Your task to perform on an android device: Open Google Maps and go to "Timeline" Image 0: 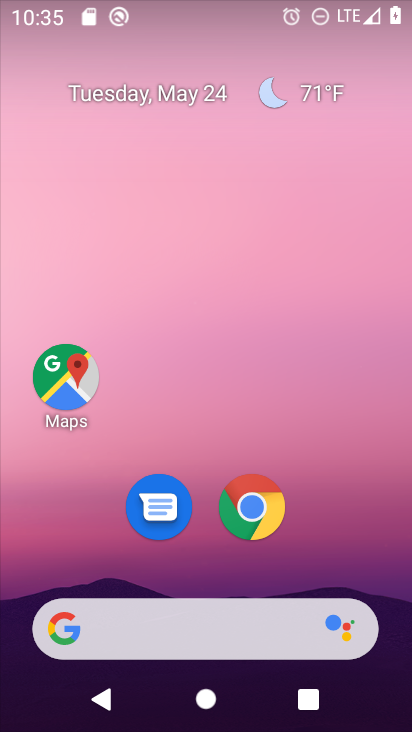
Step 0: drag from (224, 714) to (224, 177)
Your task to perform on an android device: Open Google Maps and go to "Timeline" Image 1: 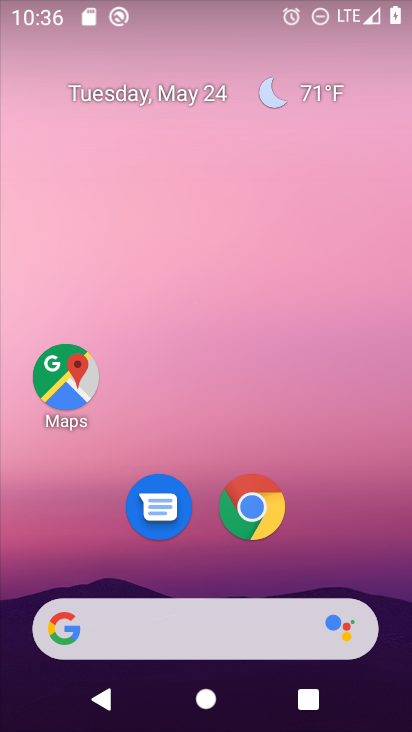
Step 1: drag from (214, 726) to (217, 210)
Your task to perform on an android device: Open Google Maps and go to "Timeline" Image 2: 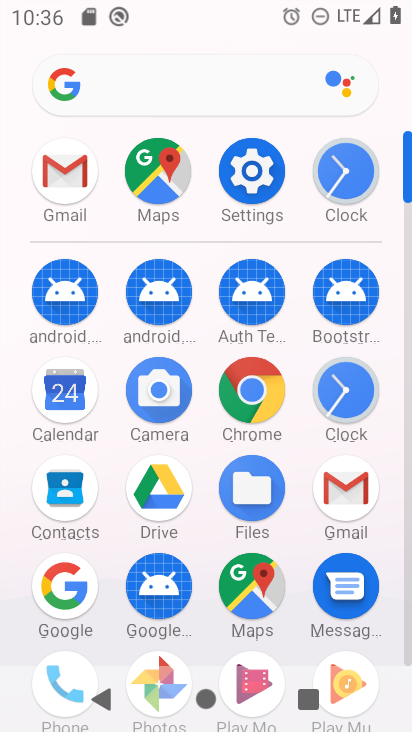
Step 2: click (239, 584)
Your task to perform on an android device: Open Google Maps and go to "Timeline" Image 3: 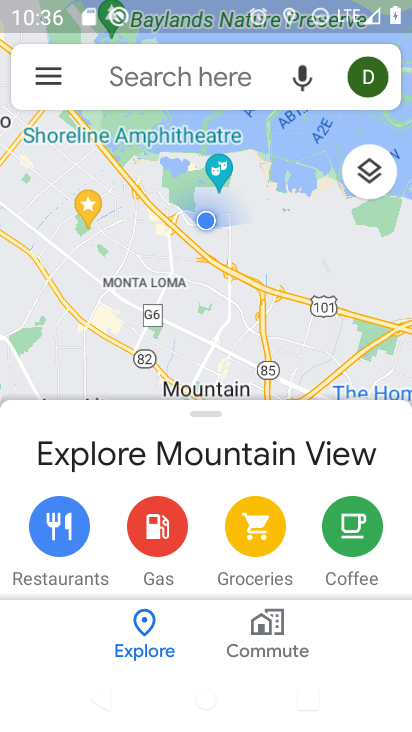
Step 3: click (49, 77)
Your task to perform on an android device: Open Google Maps and go to "Timeline" Image 4: 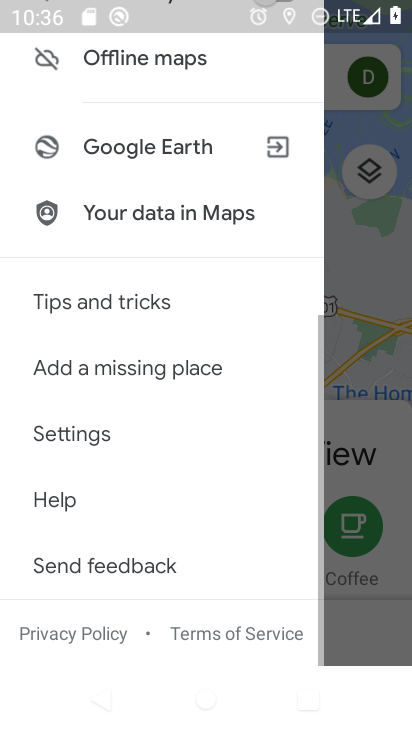
Step 4: drag from (168, 161) to (191, 548)
Your task to perform on an android device: Open Google Maps and go to "Timeline" Image 5: 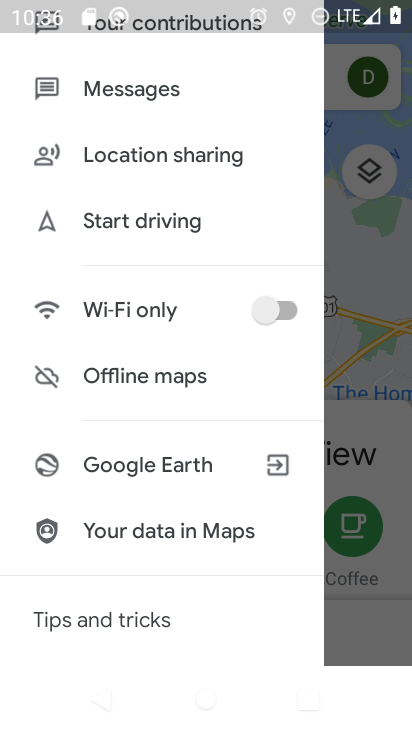
Step 5: drag from (148, 96) to (174, 536)
Your task to perform on an android device: Open Google Maps and go to "Timeline" Image 6: 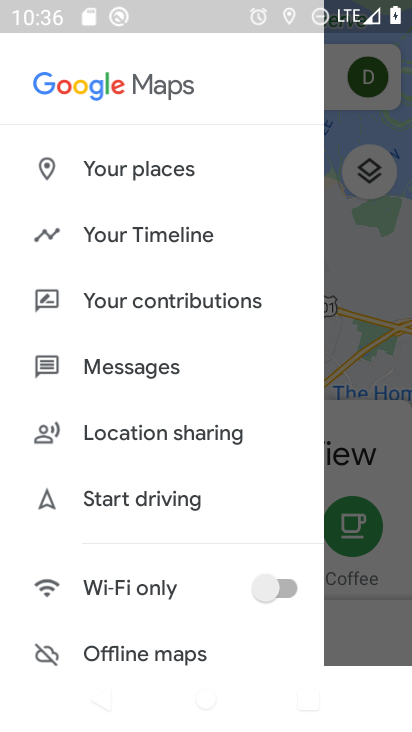
Step 6: click (136, 233)
Your task to perform on an android device: Open Google Maps and go to "Timeline" Image 7: 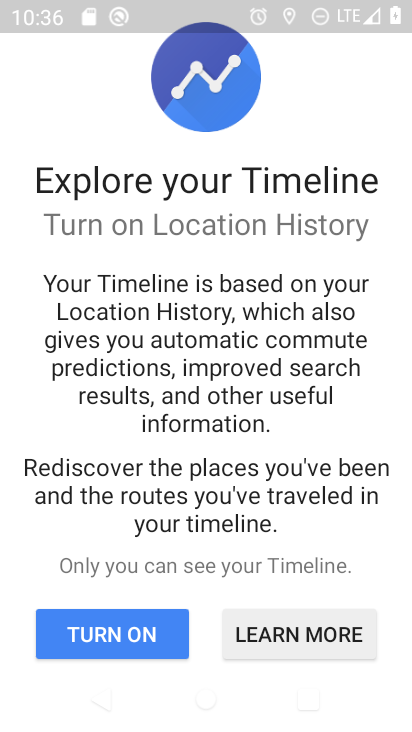
Step 7: drag from (280, 598) to (292, 216)
Your task to perform on an android device: Open Google Maps and go to "Timeline" Image 8: 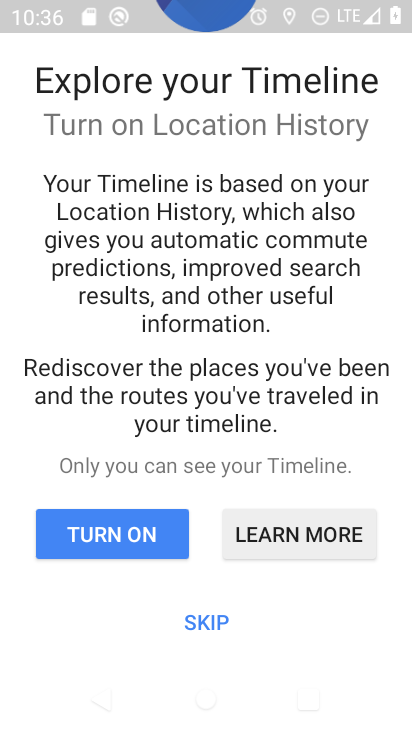
Step 8: click (200, 614)
Your task to perform on an android device: Open Google Maps and go to "Timeline" Image 9: 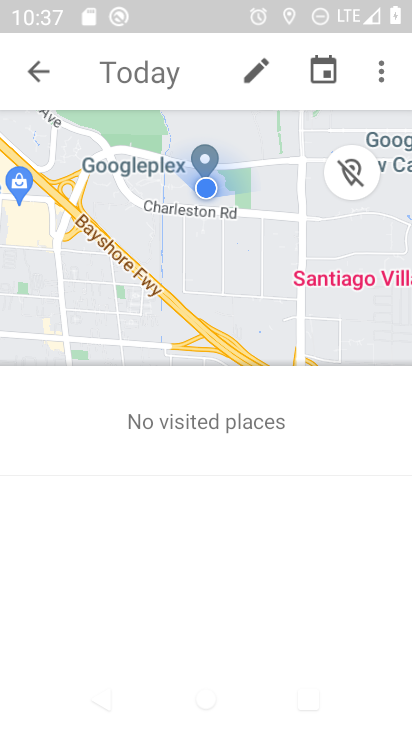
Step 9: task complete